Your task to perform on an android device: Go to Yahoo.com Image 0: 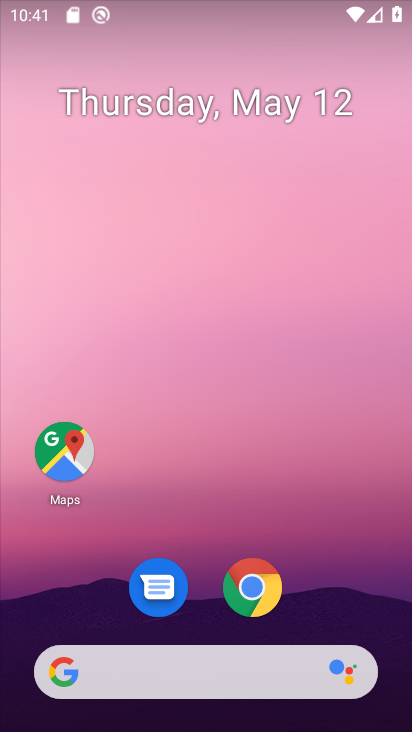
Step 0: drag from (301, 597) to (122, 27)
Your task to perform on an android device: Go to Yahoo.com Image 1: 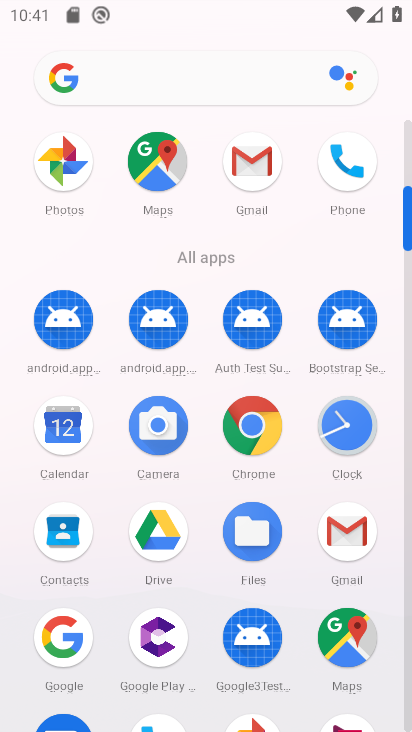
Step 1: click (262, 473)
Your task to perform on an android device: Go to Yahoo.com Image 2: 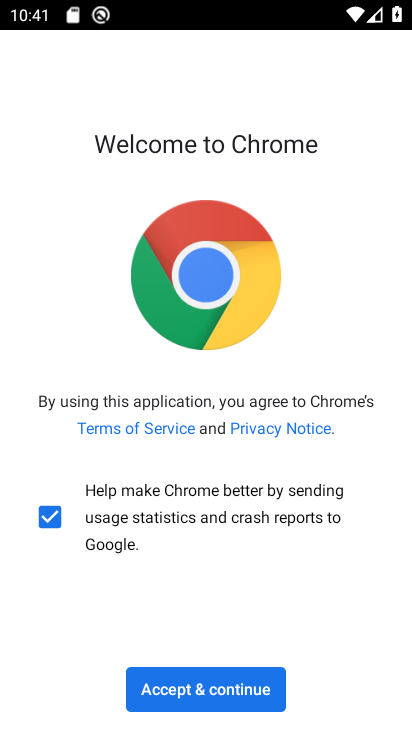
Step 2: click (202, 685)
Your task to perform on an android device: Go to Yahoo.com Image 3: 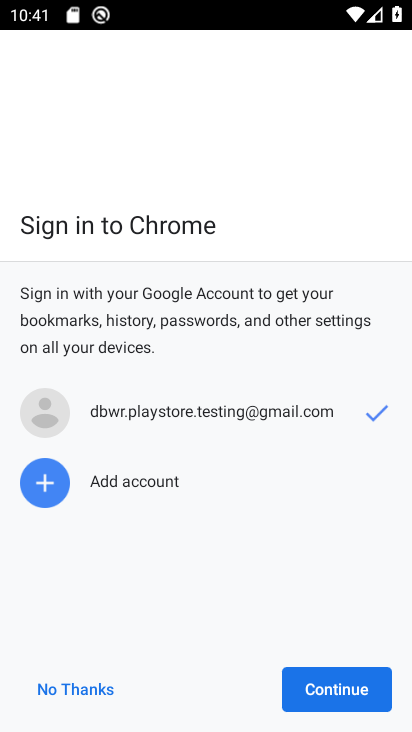
Step 3: click (314, 686)
Your task to perform on an android device: Go to Yahoo.com Image 4: 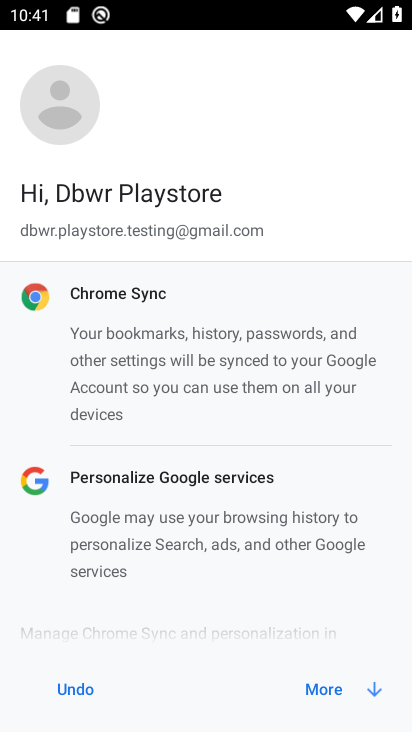
Step 4: click (321, 686)
Your task to perform on an android device: Go to Yahoo.com Image 5: 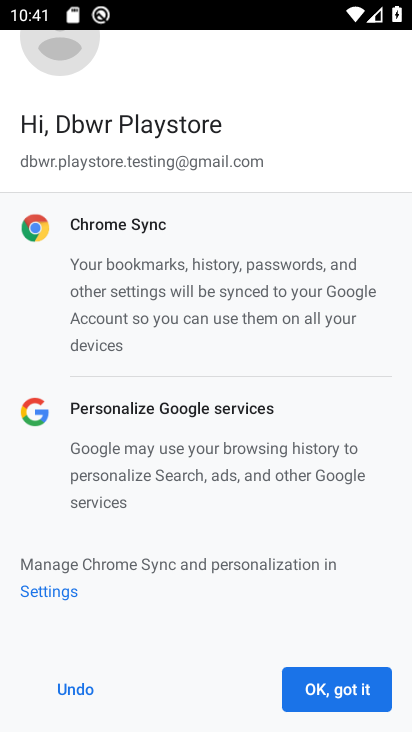
Step 5: click (365, 691)
Your task to perform on an android device: Go to Yahoo.com Image 6: 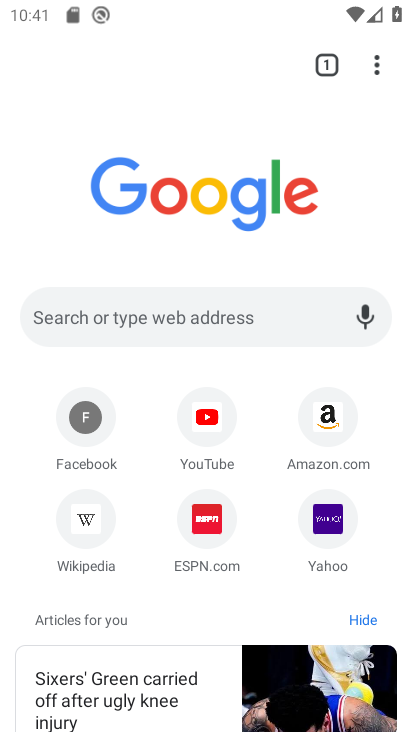
Step 6: click (336, 547)
Your task to perform on an android device: Go to Yahoo.com Image 7: 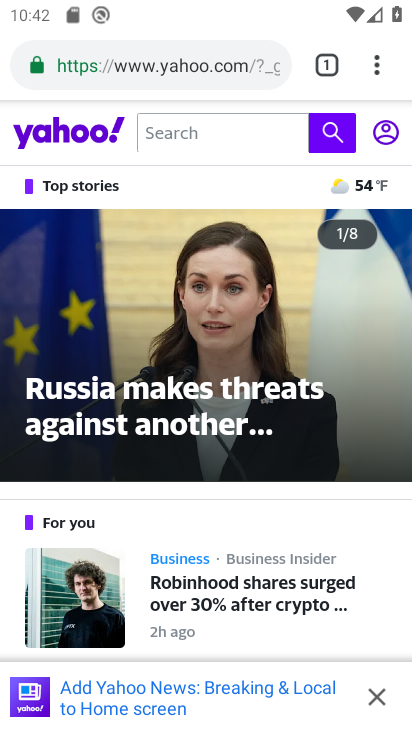
Step 7: task complete